Your task to perform on an android device: Go to Google maps Image 0: 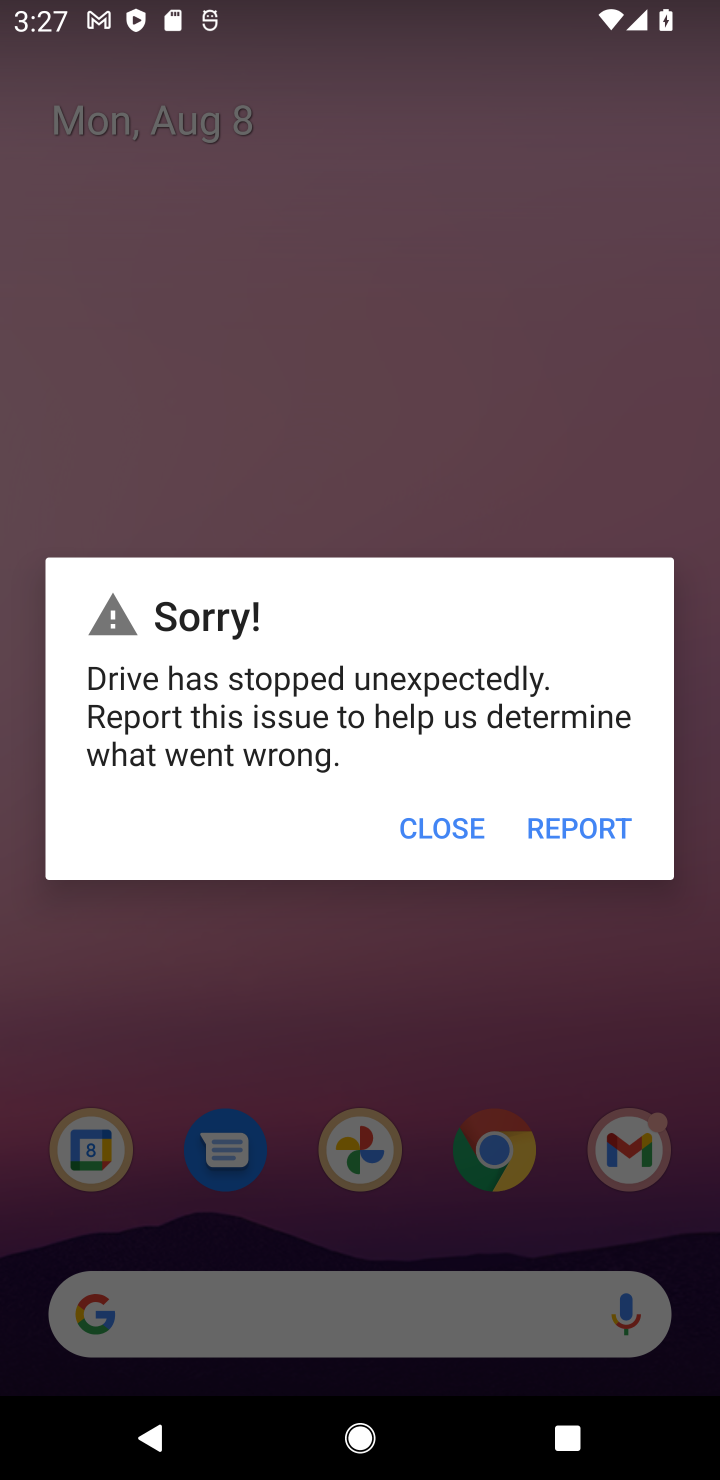
Step 0: click (398, 832)
Your task to perform on an android device: Go to Google maps Image 1: 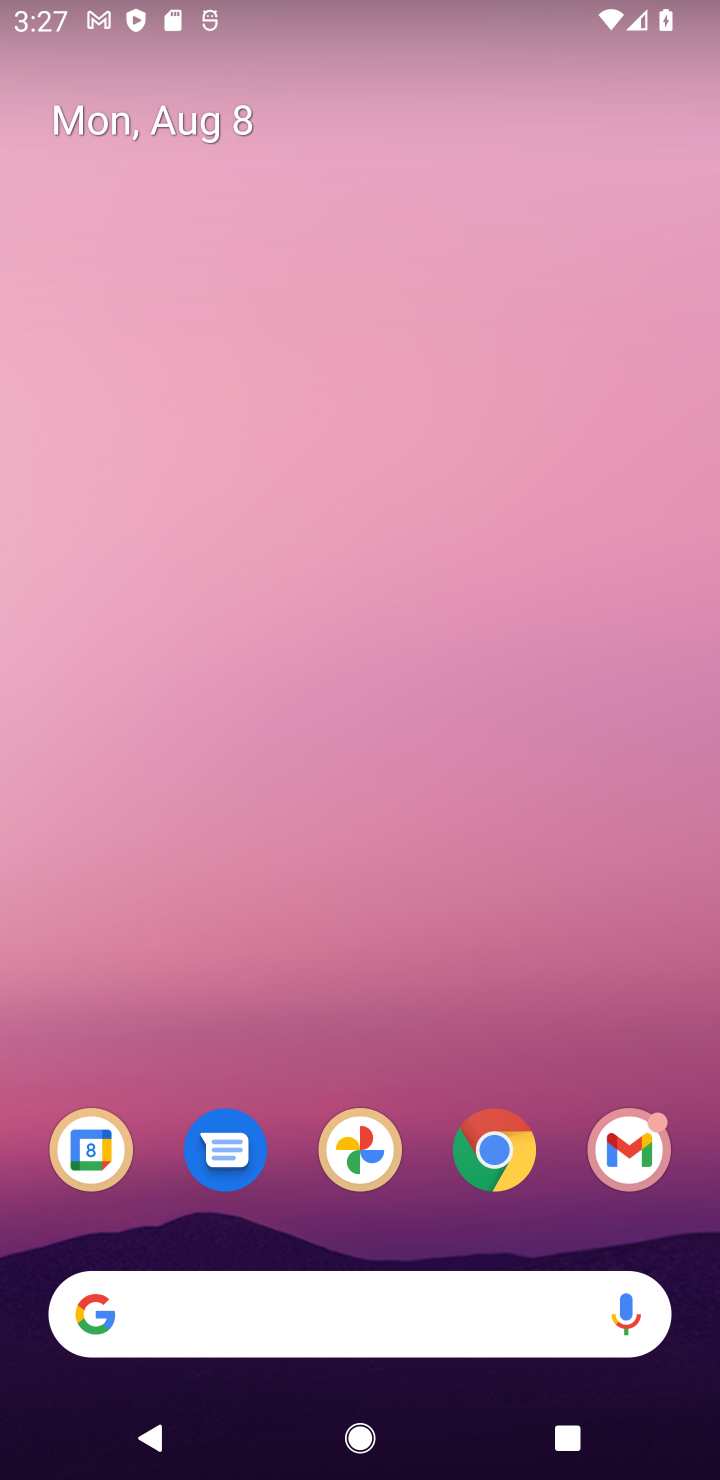
Step 1: drag from (556, 1234) to (305, 80)
Your task to perform on an android device: Go to Google maps Image 2: 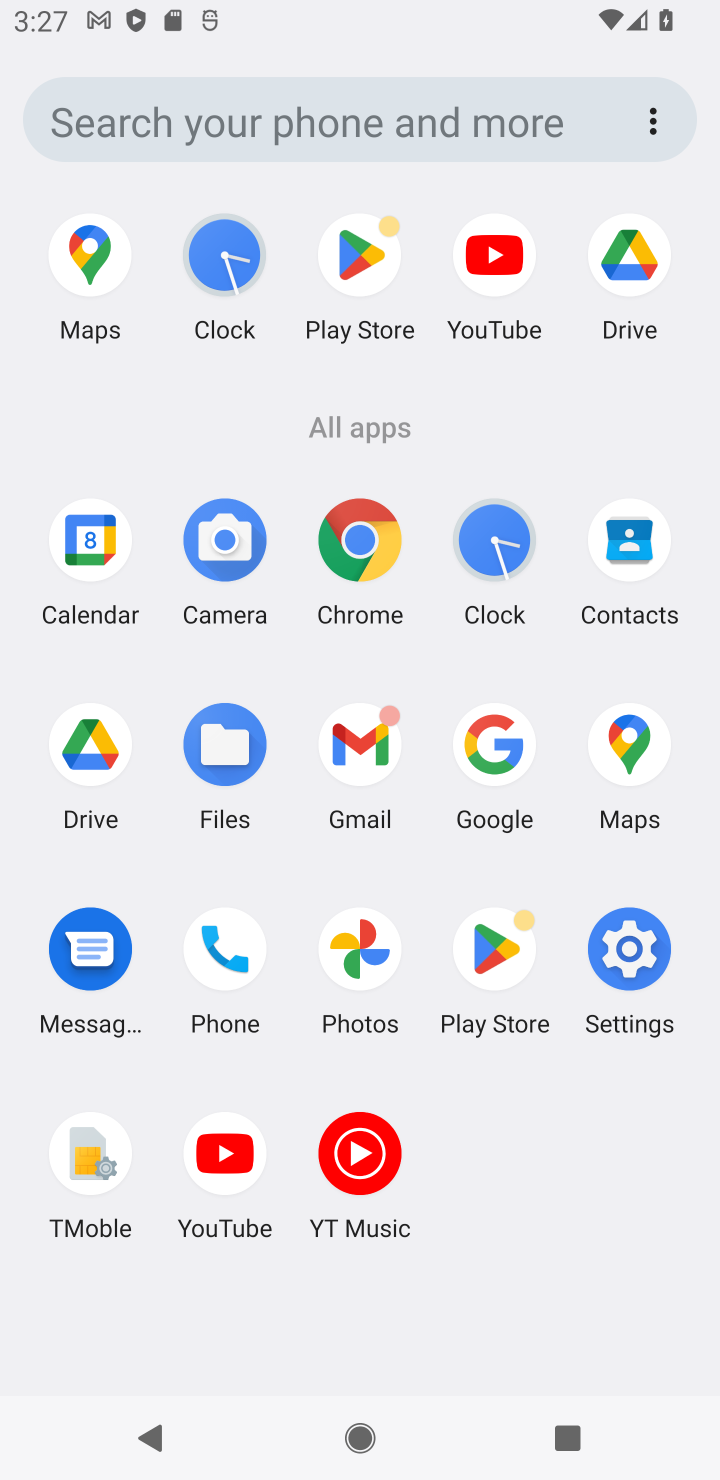
Step 2: click (123, 271)
Your task to perform on an android device: Go to Google maps Image 3: 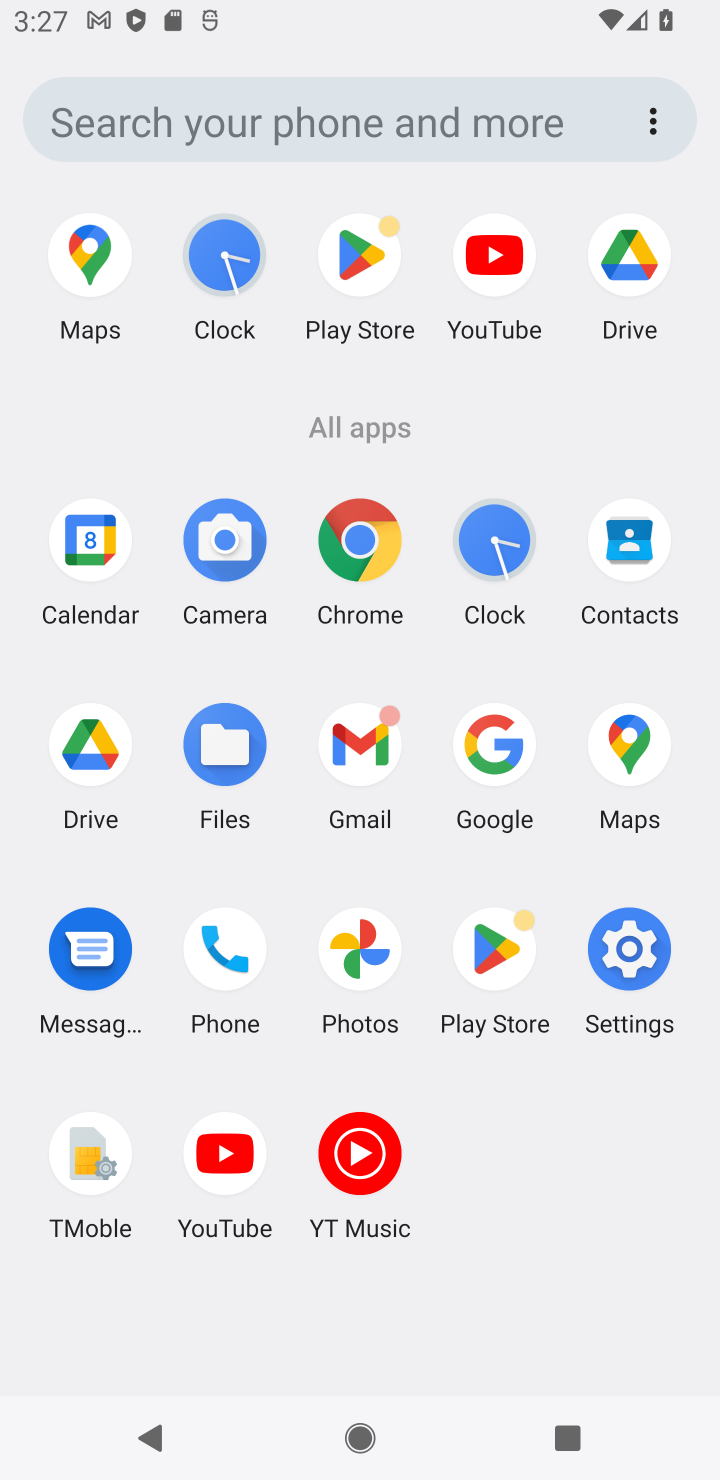
Step 3: task complete